Your task to perform on an android device: change the clock display to show seconds Image 0: 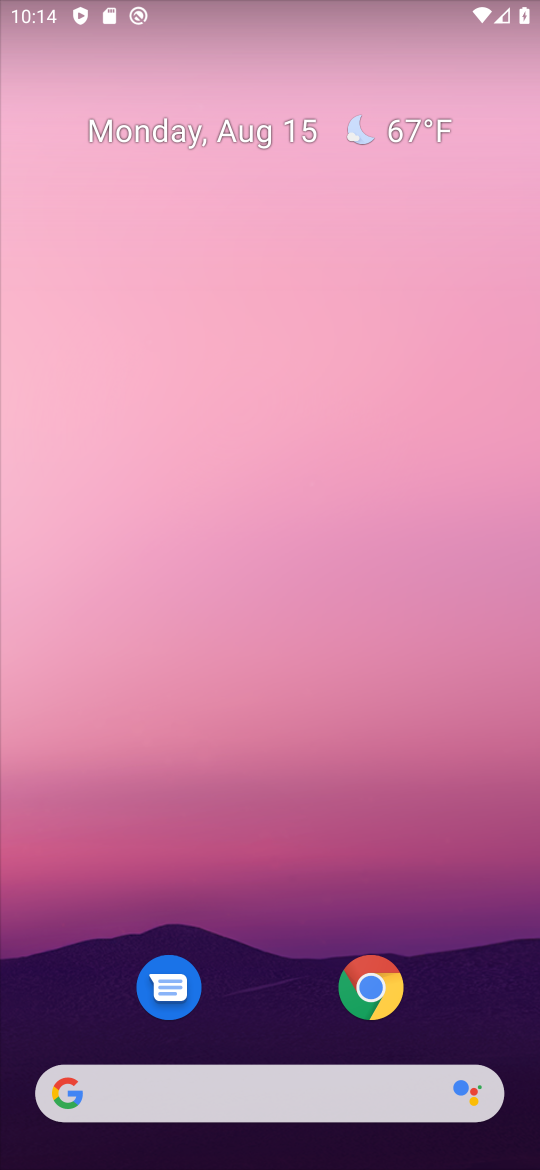
Step 0: drag from (268, 1033) to (177, 84)
Your task to perform on an android device: change the clock display to show seconds Image 1: 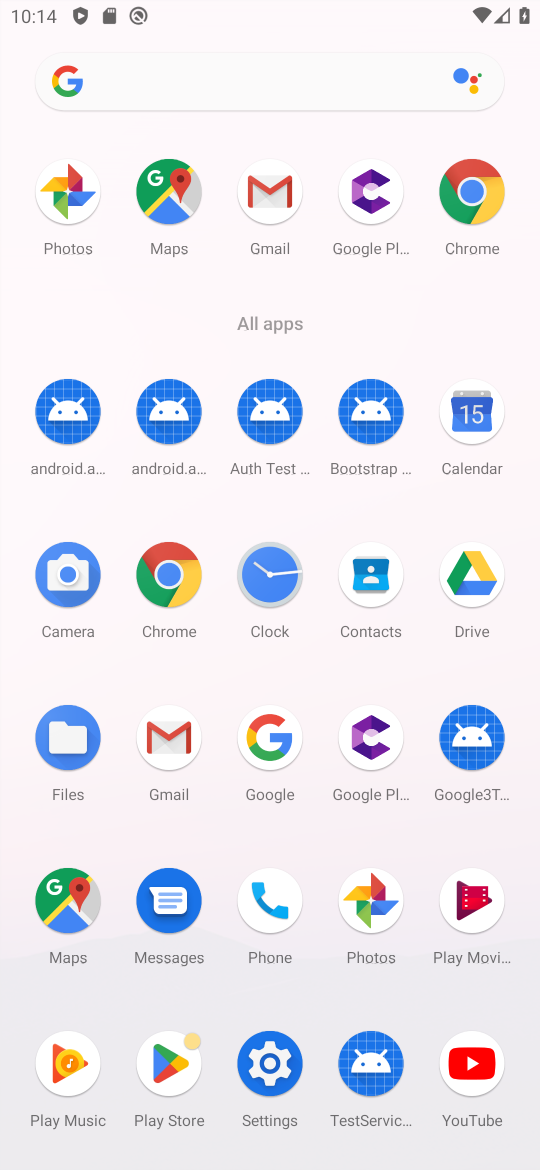
Step 1: click (254, 584)
Your task to perform on an android device: change the clock display to show seconds Image 2: 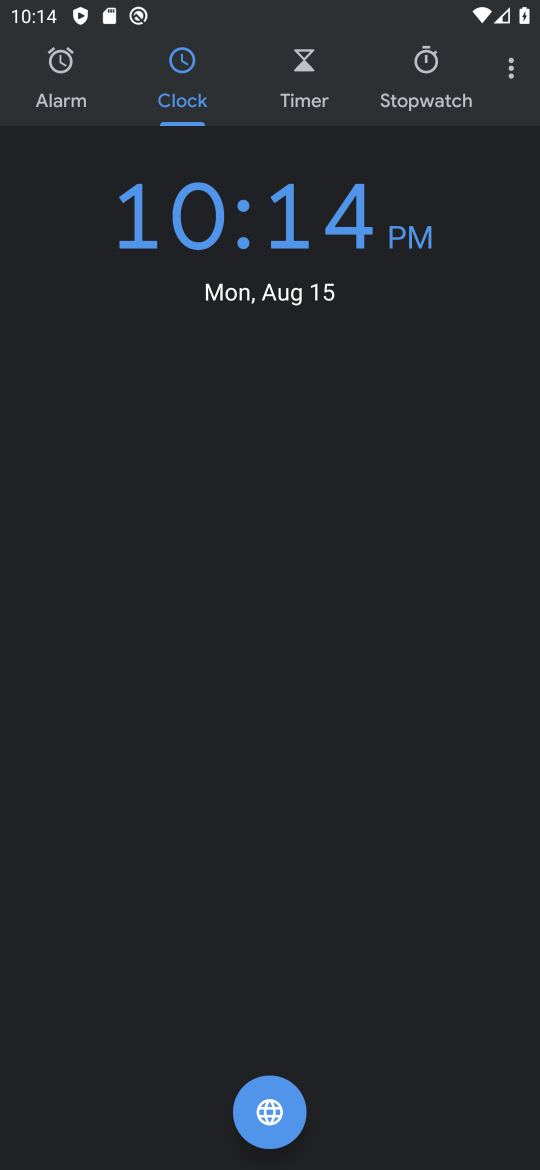
Step 2: click (512, 70)
Your task to perform on an android device: change the clock display to show seconds Image 3: 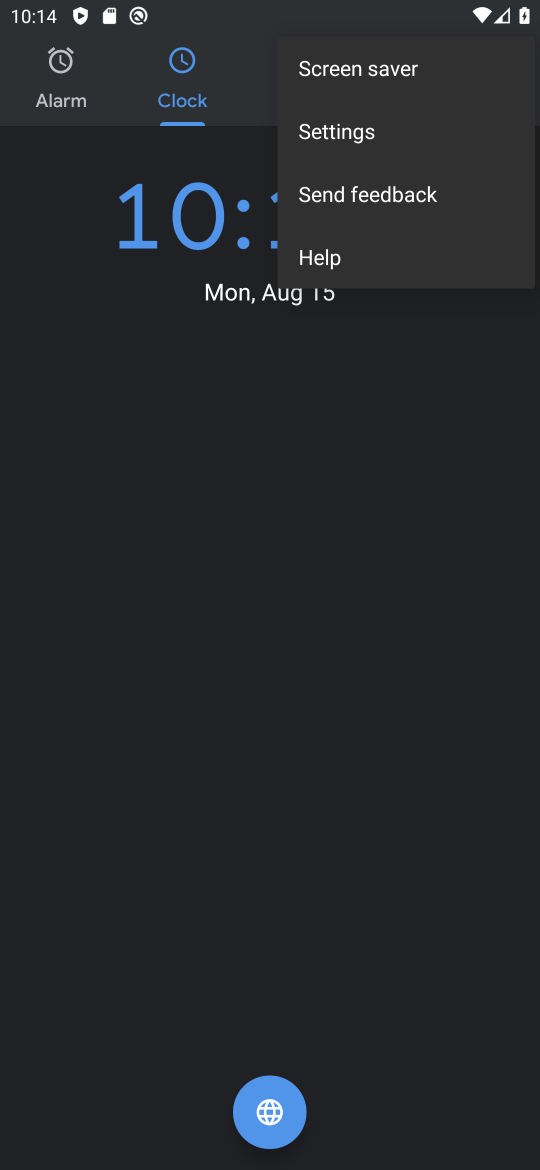
Step 3: click (352, 133)
Your task to perform on an android device: change the clock display to show seconds Image 4: 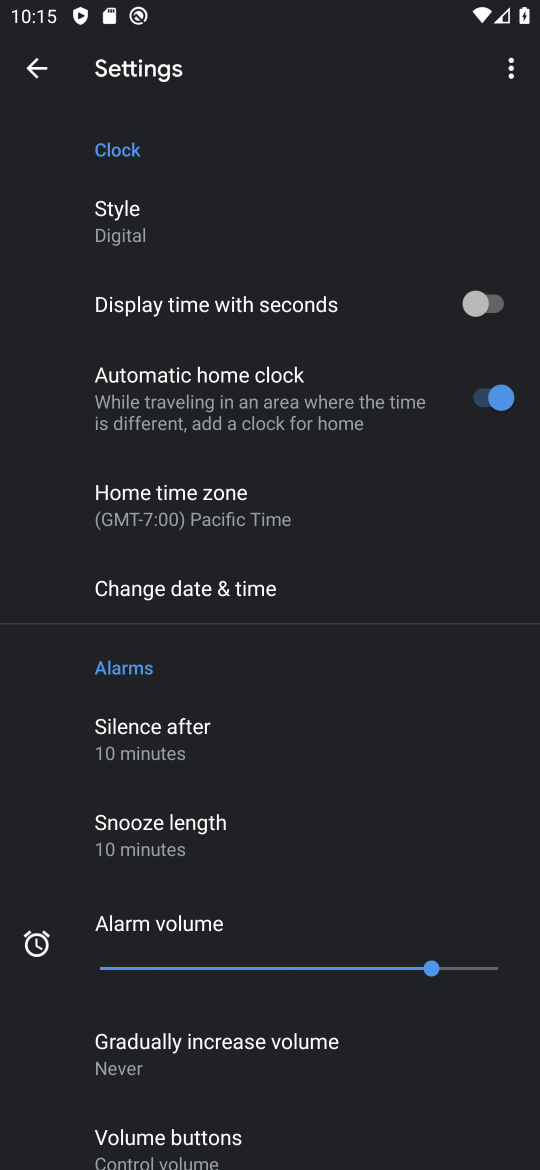
Step 4: click (474, 304)
Your task to perform on an android device: change the clock display to show seconds Image 5: 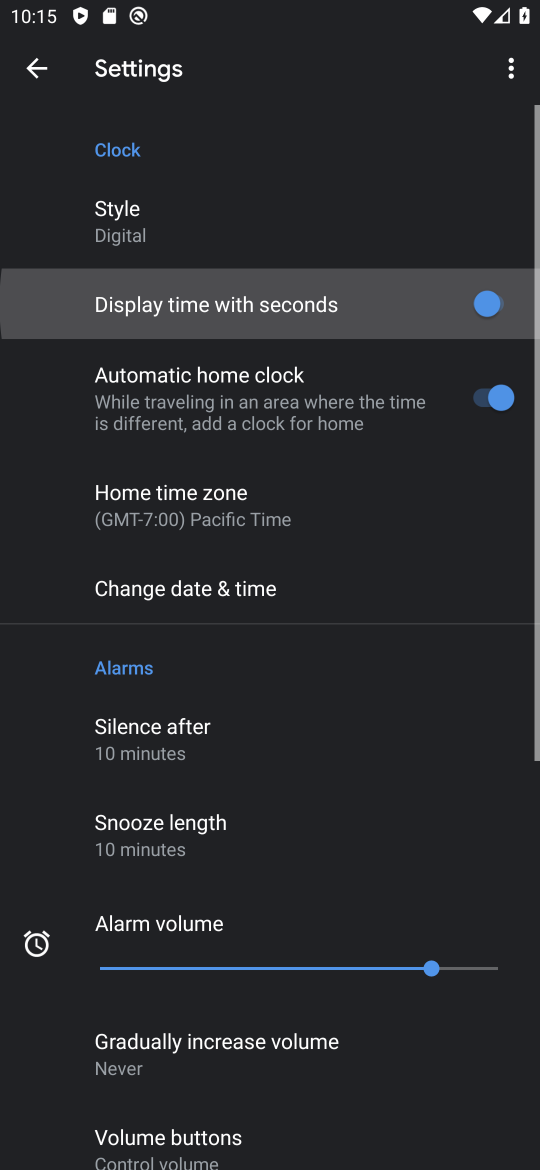
Step 5: task complete